Your task to perform on an android device: Go to Maps Image 0: 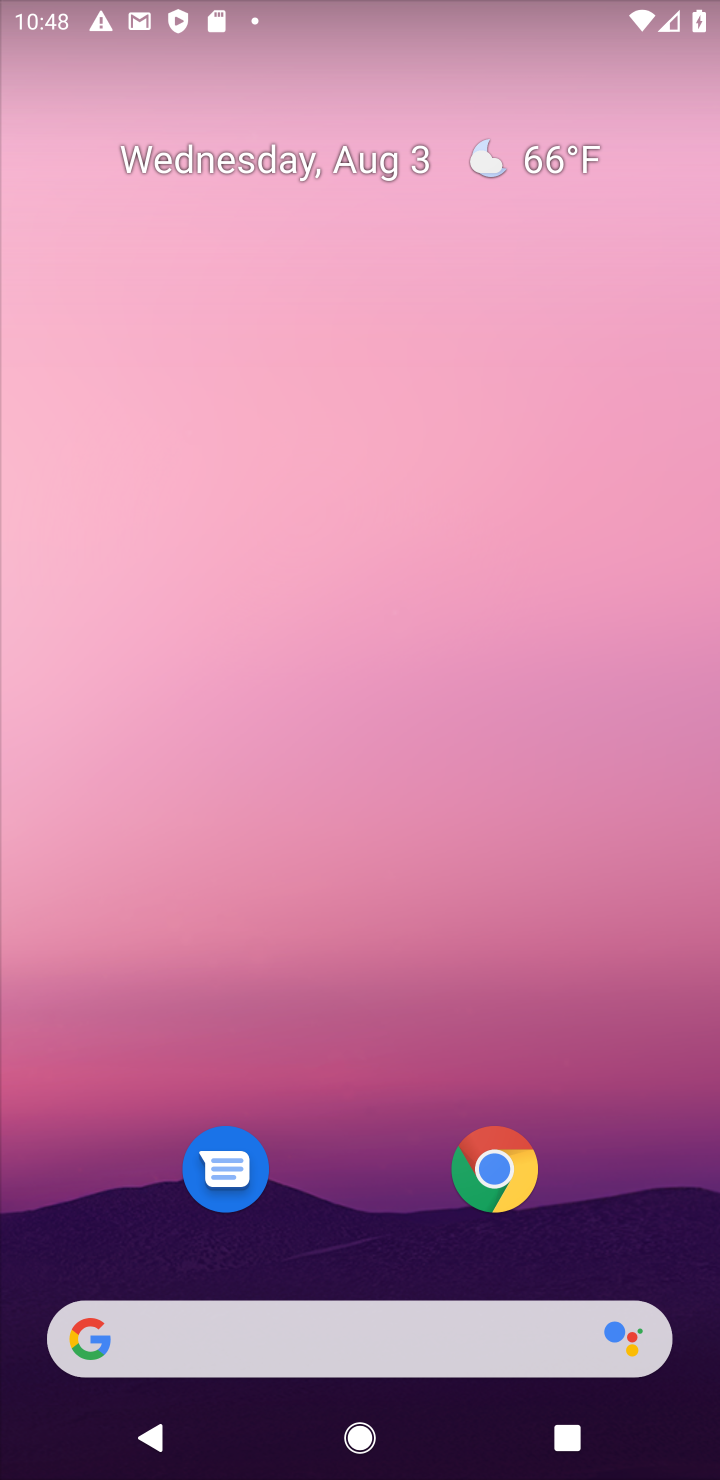
Step 0: drag from (344, 1135) to (299, 7)
Your task to perform on an android device: Go to Maps Image 1: 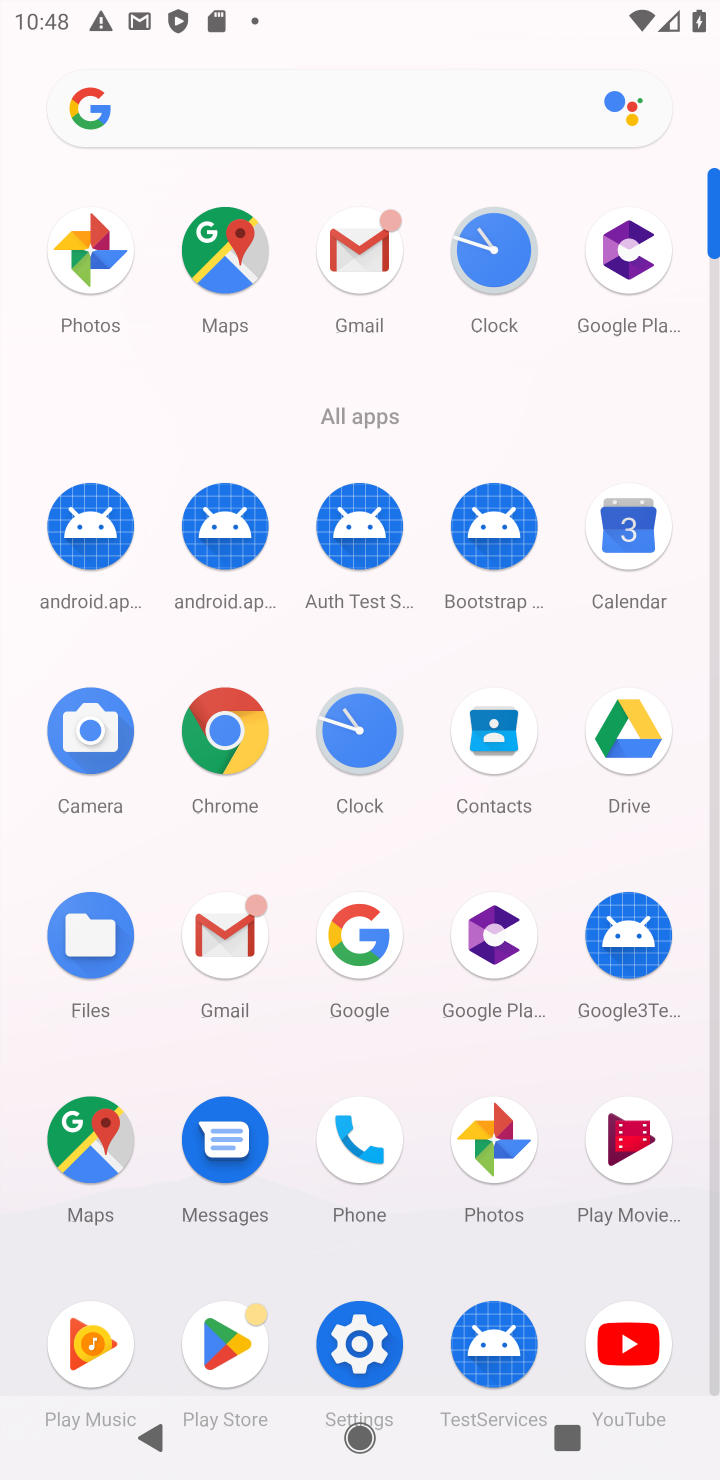
Step 1: click (216, 247)
Your task to perform on an android device: Go to Maps Image 2: 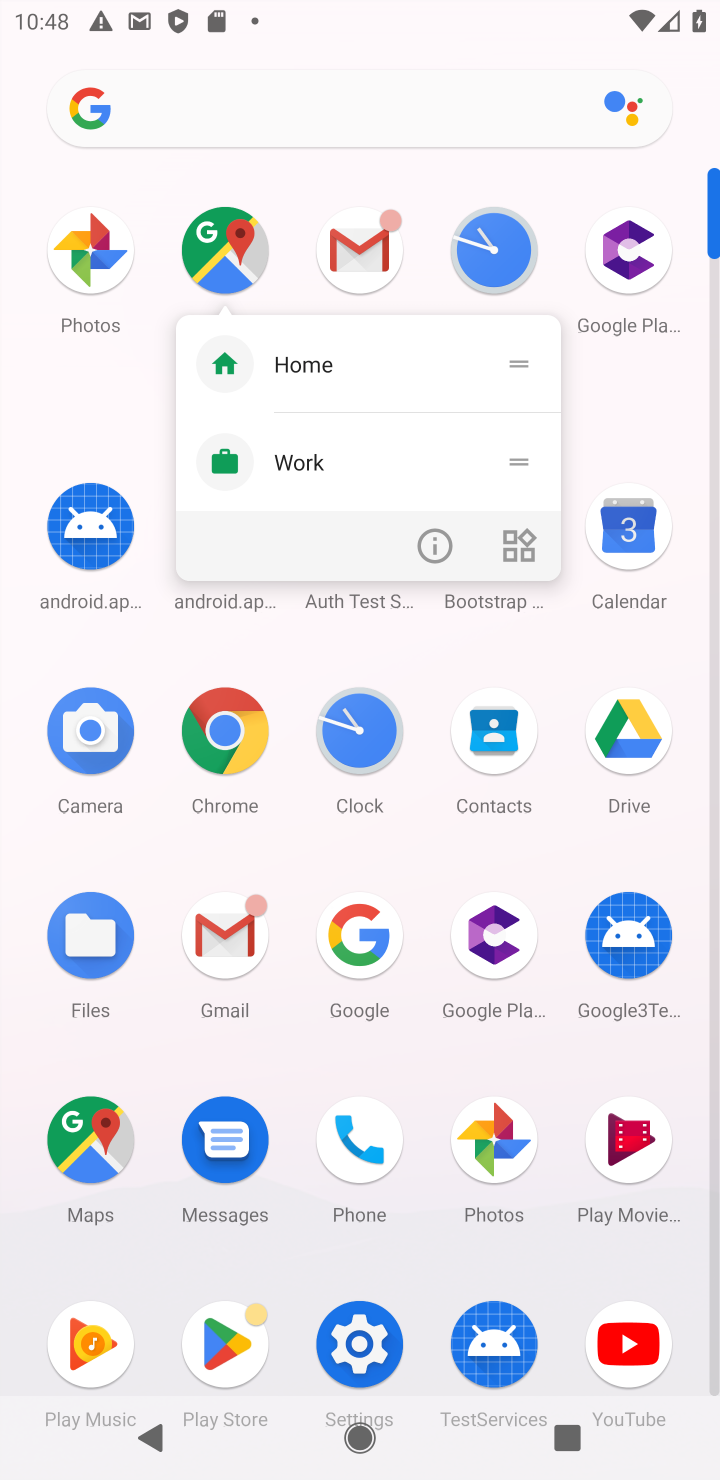
Step 2: click (216, 265)
Your task to perform on an android device: Go to Maps Image 3: 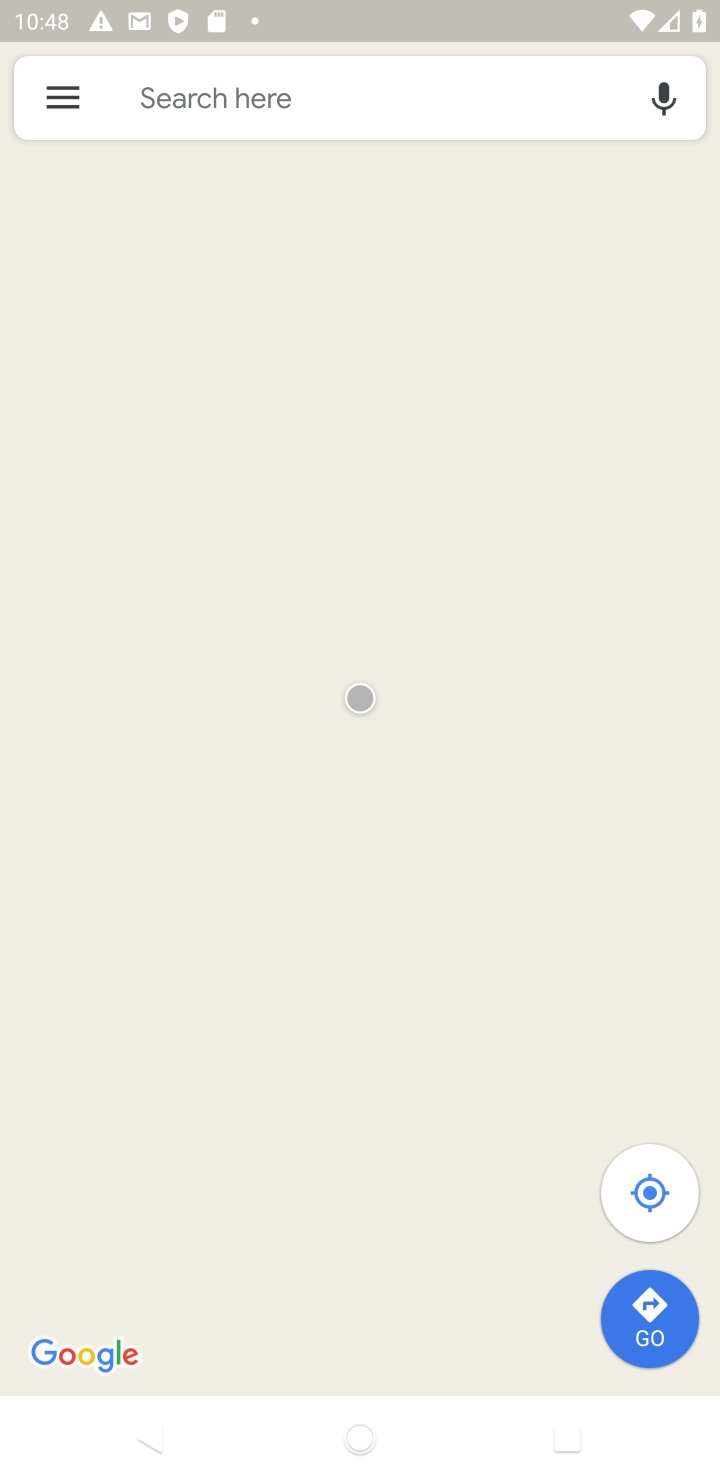
Step 3: task complete